Your task to perform on an android device: Find coffee shops on Maps Image 0: 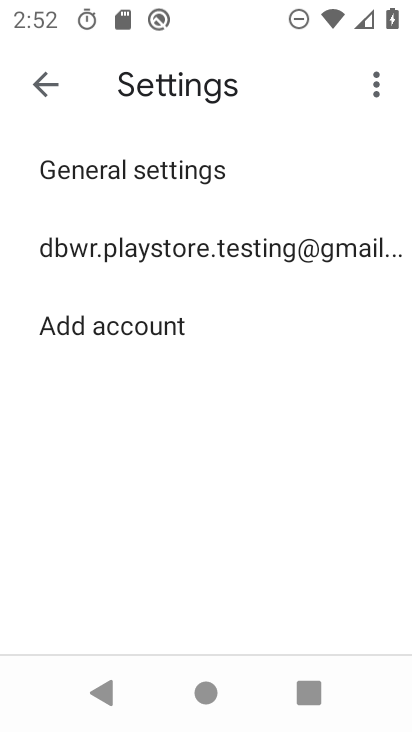
Step 0: press home button
Your task to perform on an android device: Find coffee shops on Maps Image 1: 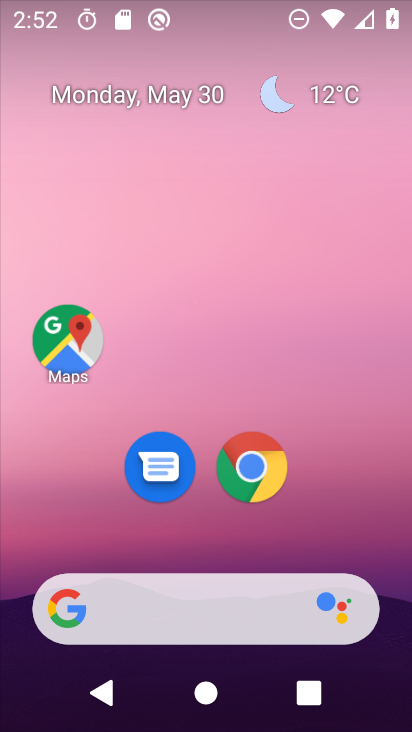
Step 1: click (46, 350)
Your task to perform on an android device: Find coffee shops on Maps Image 2: 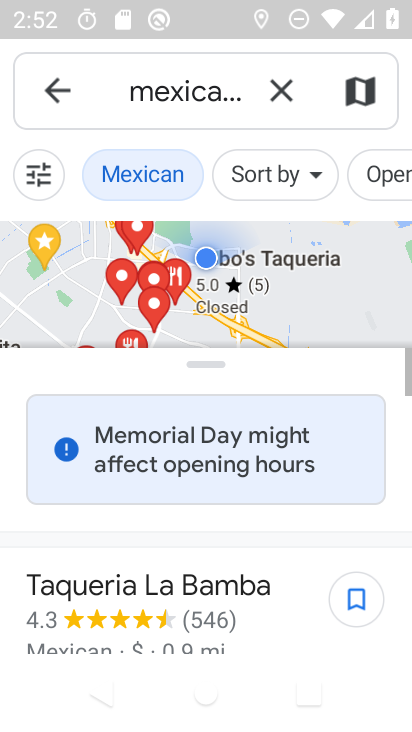
Step 2: click (277, 73)
Your task to perform on an android device: Find coffee shops on Maps Image 3: 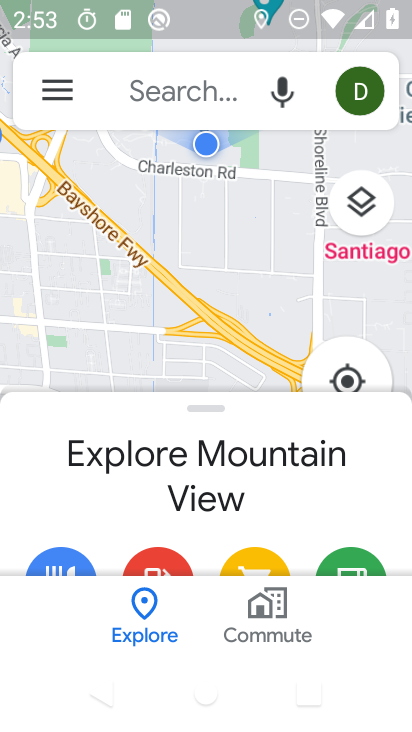
Step 3: type "coffee shops"
Your task to perform on an android device: Find coffee shops on Maps Image 4: 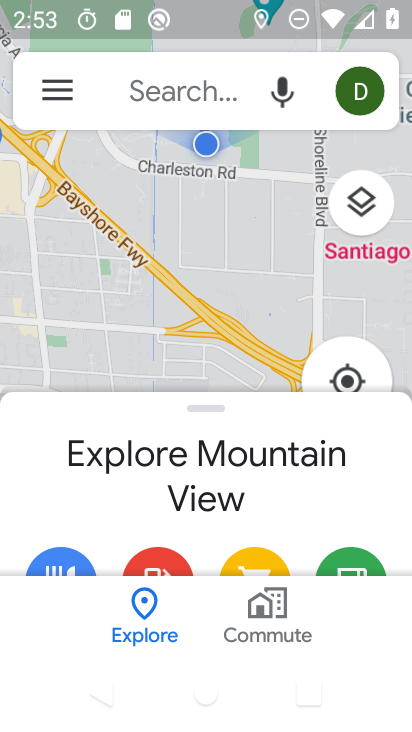
Step 4: click (156, 95)
Your task to perform on an android device: Find coffee shops on Maps Image 5: 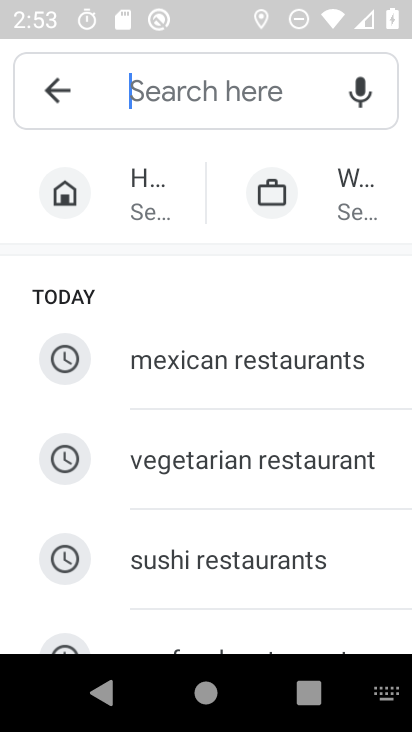
Step 5: type "coffee shops"
Your task to perform on an android device: Find coffee shops on Maps Image 6: 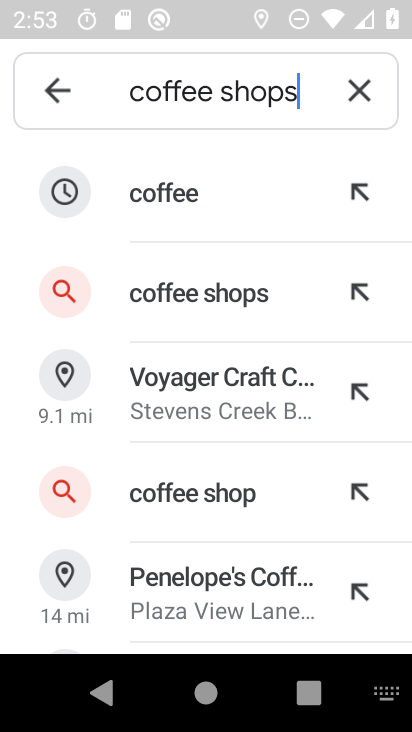
Step 6: click (169, 285)
Your task to perform on an android device: Find coffee shops on Maps Image 7: 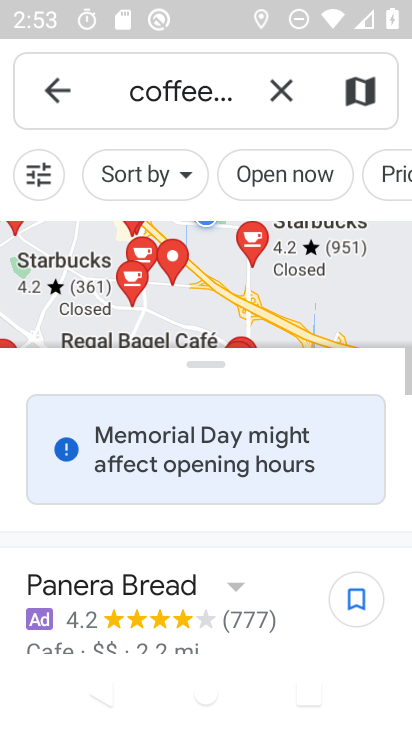
Step 7: task complete